Your task to perform on an android device: toggle wifi Image 0: 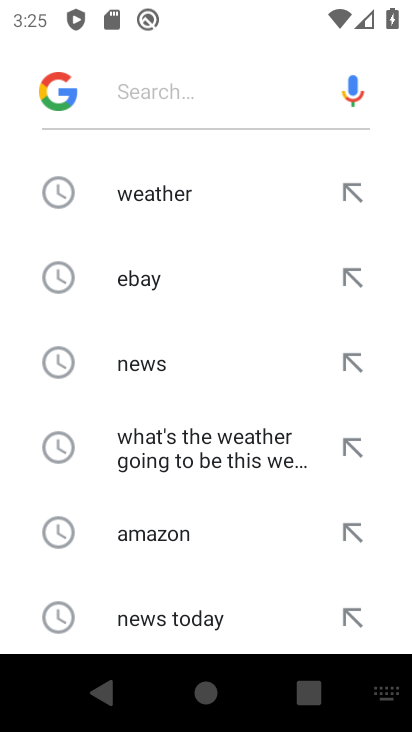
Step 0: click (106, 704)
Your task to perform on an android device: toggle wifi Image 1: 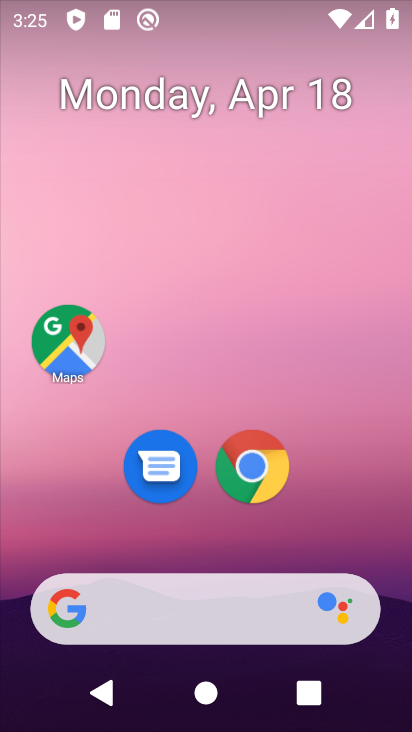
Step 1: drag from (342, 520) to (246, 154)
Your task to perform on an android device: toggle wifi Image 2: 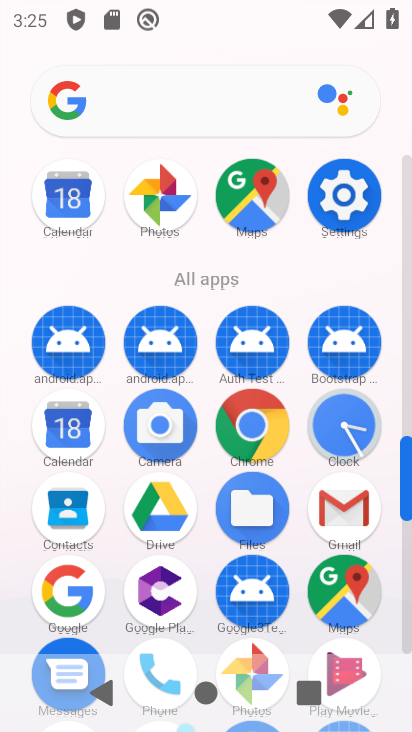
Step 2: click (333, 201)
Your task to perform on an android device: toggle wifi Image 3: 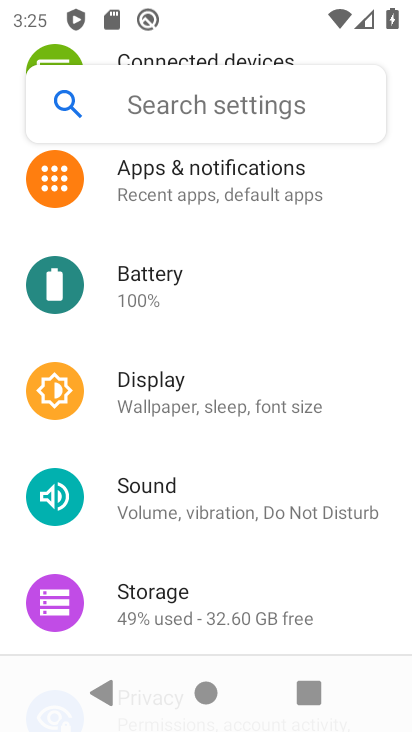
Step 3: drag from (309, 231) to (233, 728)
Your task to perform on an android device: toggle wifi Image 4: 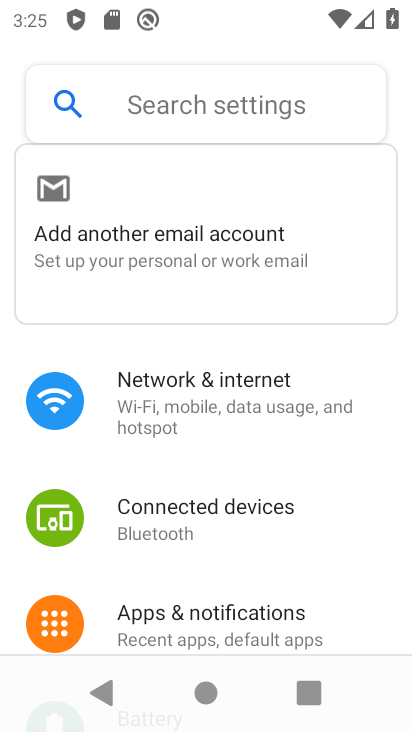
Step 4: click (206, 444)
Your task to perform on an android device: toggle wifi Image 5: 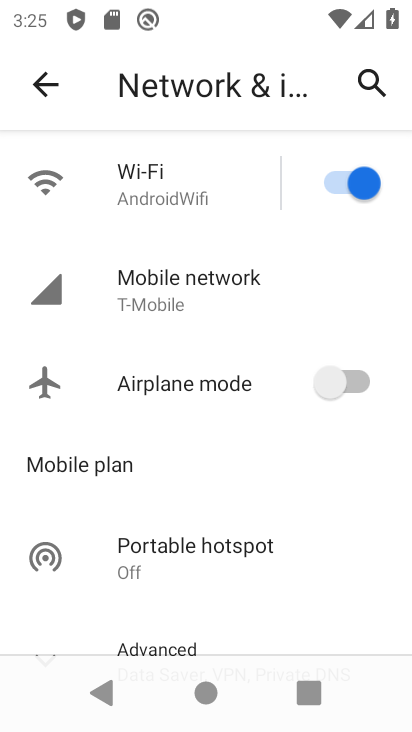
Step 5: click (328, 189)
Your task to perform on an android device: toggle wifi Image 6: 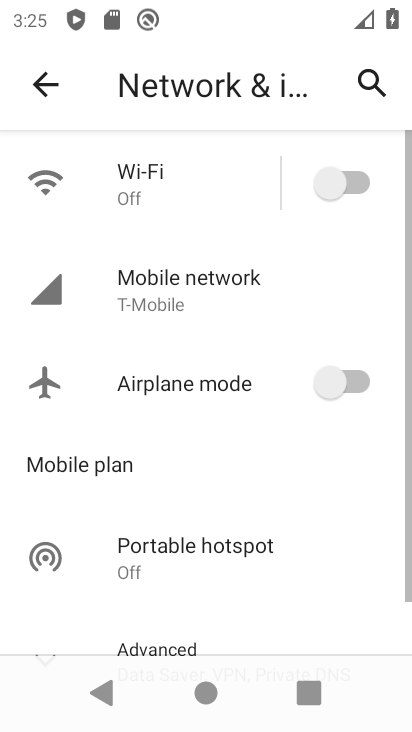
Step 6: task complete